Your task to perform on an android device: Go to Wikipedia Image 0: 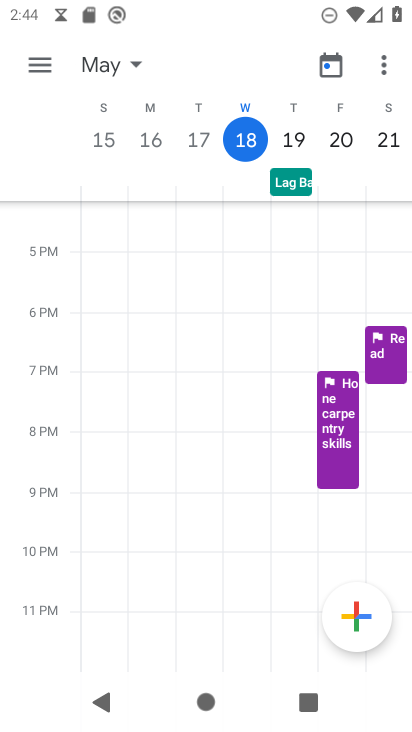
Step 0: press home button
Your task to perform on an android device: Go to Wikipedia Image 1: 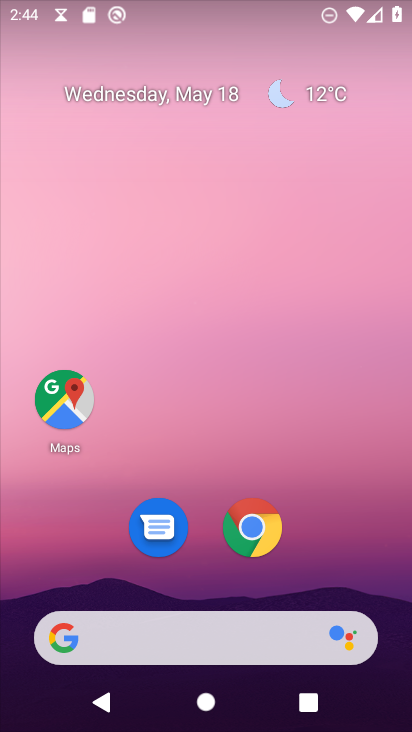
Step 1: click (267, 525)
Your task to perform on an android device: Go to Wikipedia Image 2: 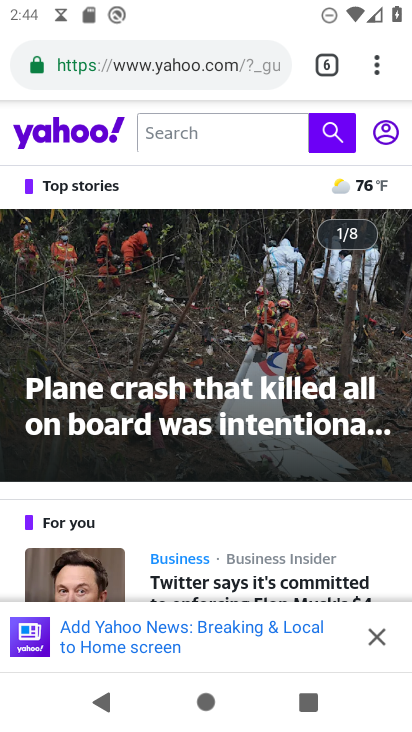
Step 2: click (329, 54)
Your task to perform on an android device: Go to Wikipedia Image 3: 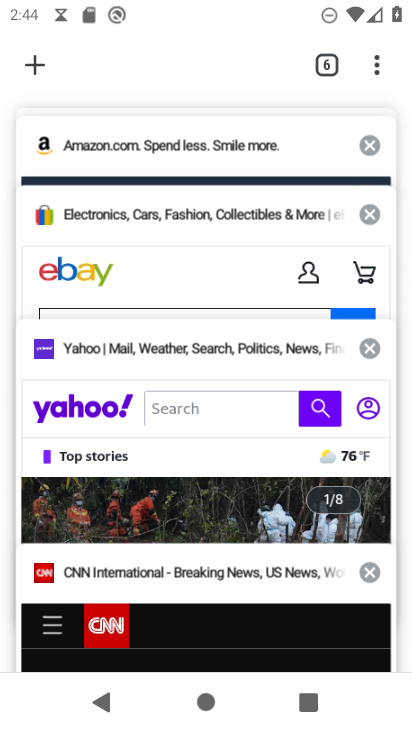
Step 3: click (30, 47)
Your task to perform on an android device: Go to Wikipedia Image 4: 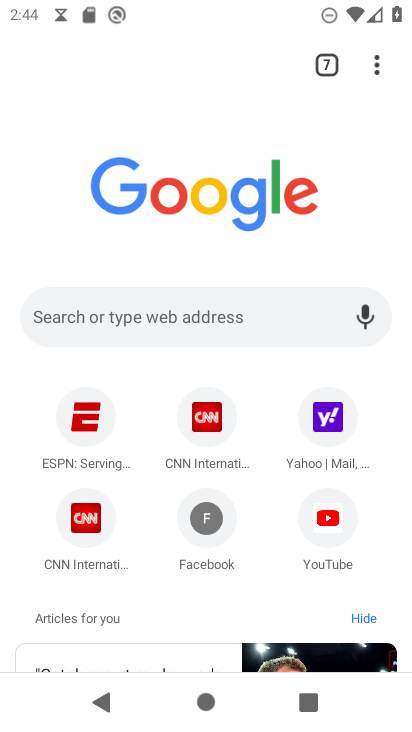
Step 4: click (217, 315)
Your task to perform on an android device: Go to Wikipedia Image 5: 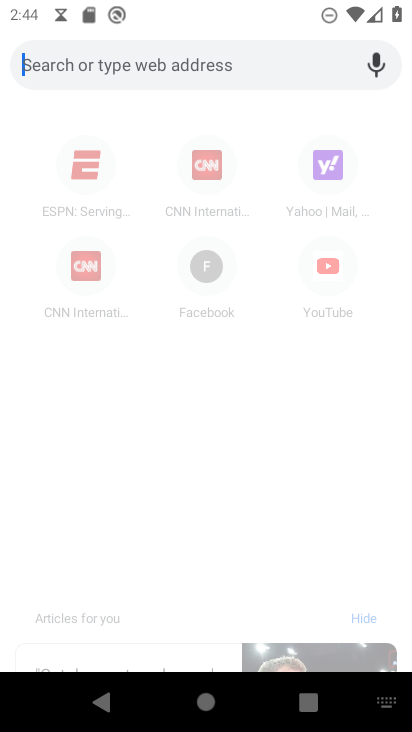
Step 5: type "wikipedia"
Your task to perform on an android device: Go to Wikipedia Image 6: 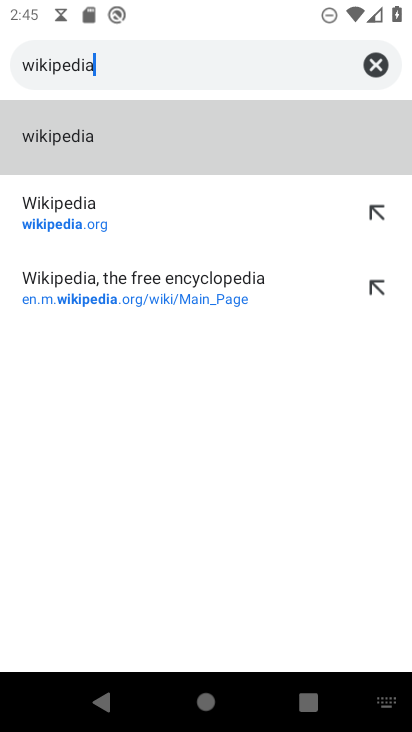
Step 6: click (180, 145)
Your task to perform on an android device: Go to Wikipedia Image 7: 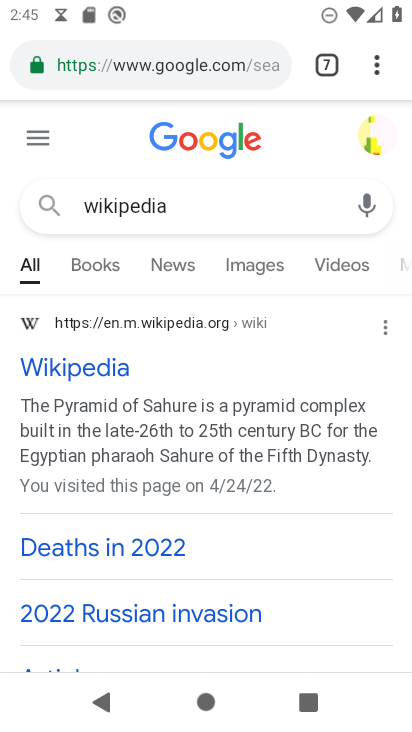
Step 7: click (98, 367)
Your task to perform on an android device: Go to Wikipedia Image 8: 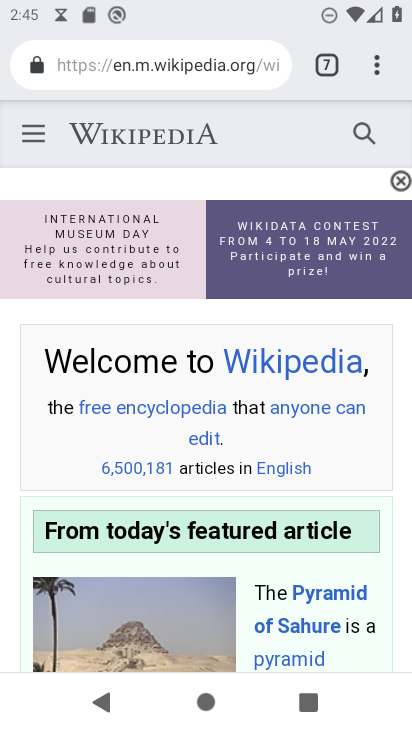
Step 8: task complete